Your task to perform on an android device: Open Maps and search for coffee Image 0: 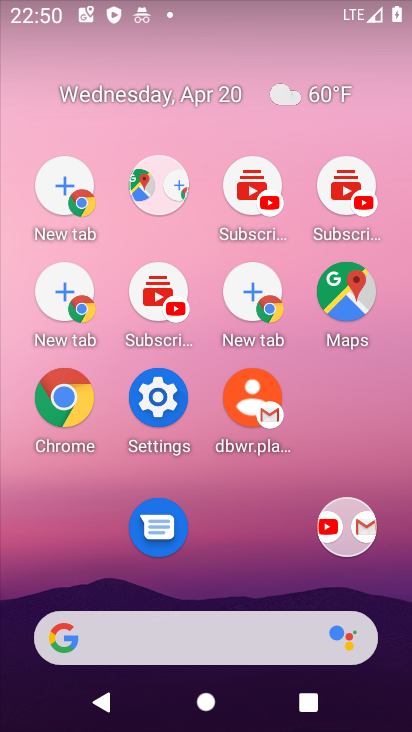
Step 0: drag from (251, 721) to (144, 27)
Your task to perform on an android device: Open Maps and search for coffee Image 1: 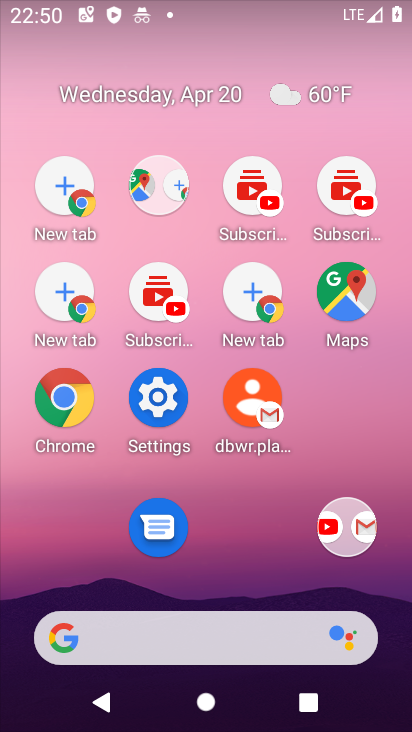
Step 1: drag from (303, 730) to (221, 10)
Your task to perform on an android device: Open Maps and search for coffee Image 2: 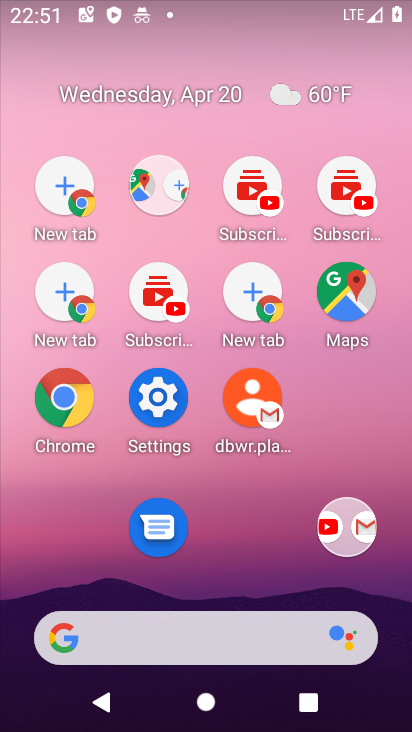
Step 2: drag from (392, 697) to (219, 112)
Your task to perform on an android device: Open Maps and search for coffee Image 3: 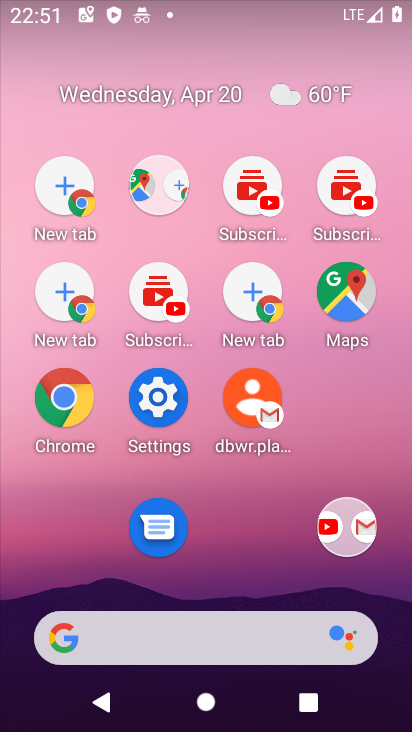
Step 3: drag from (384, 626) to (182, 150)
Your task to perform on an android device: Open Maps and search for coffee Image 4: 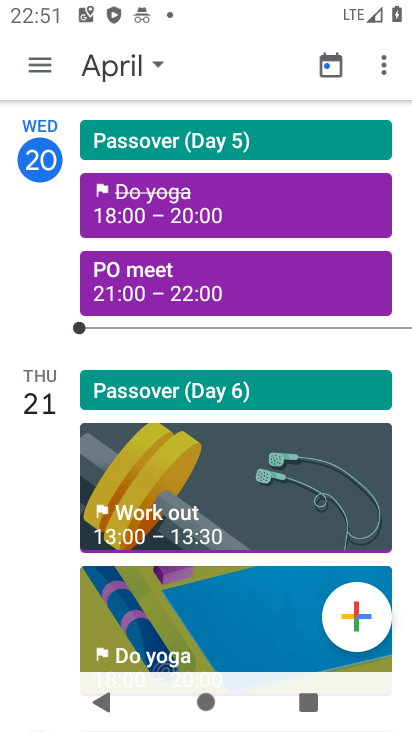
Step 4: drag from (287, 523) to (231, 204)
Your task to perform on an android device: Open Maps and search for coffee Image 5: 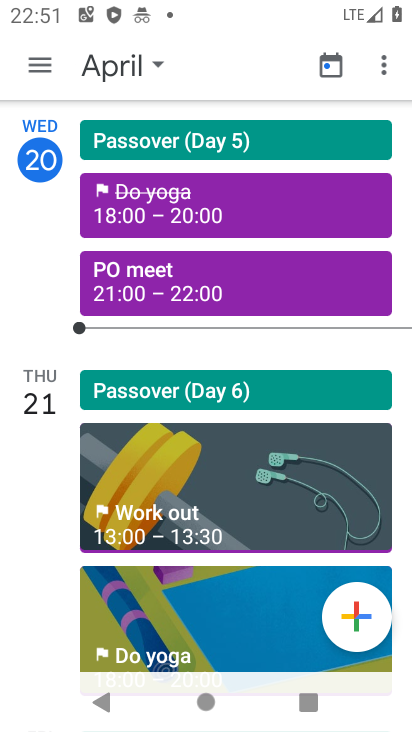
Step 5: press home button
Your task to perform on an android device: Open Maps and search for coffee Image 6: 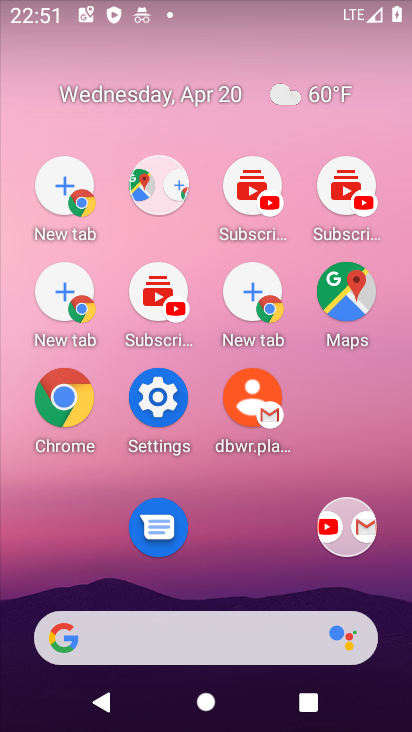
Step 6: drag from (340, 304) to (388, 444)
Your task to perform on an android device: Open Maps and search for coffee Image 7: 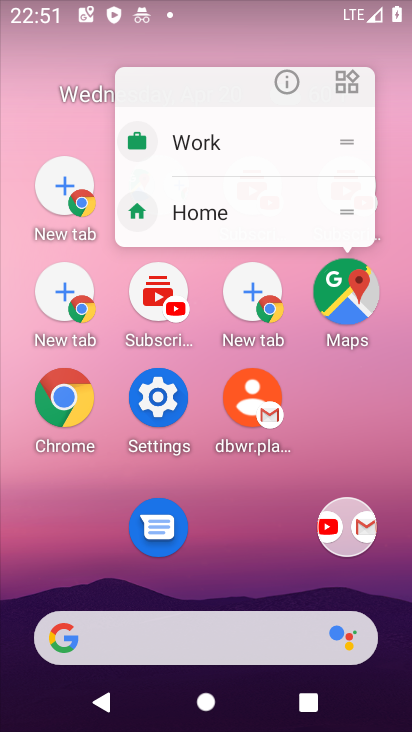
Step 7: drag from (323, 570) to (247, 134)
Your task to perform on an android device: Open Maps and search for coffee Image 8: 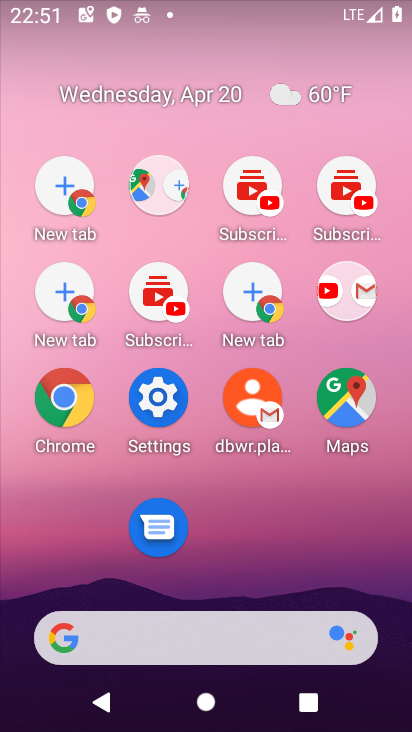
Step 8: click (348, 387)
Your task to perform on an android device: Open Maps and search for coffee Image 9: 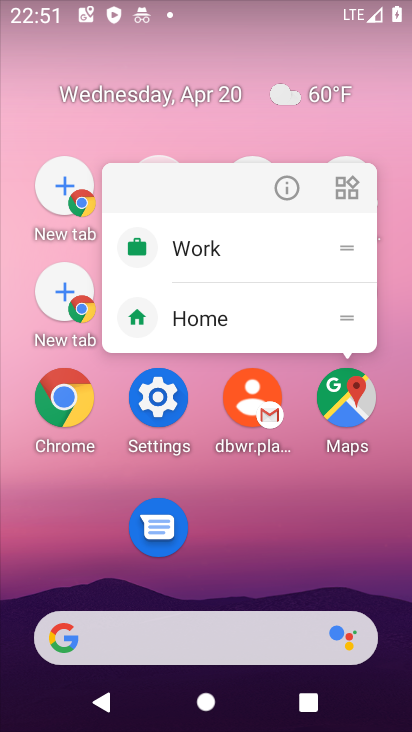
Step 9: click (367, 416)
Your task to perform on an android device: Open Maps and search for coffee Image 10: 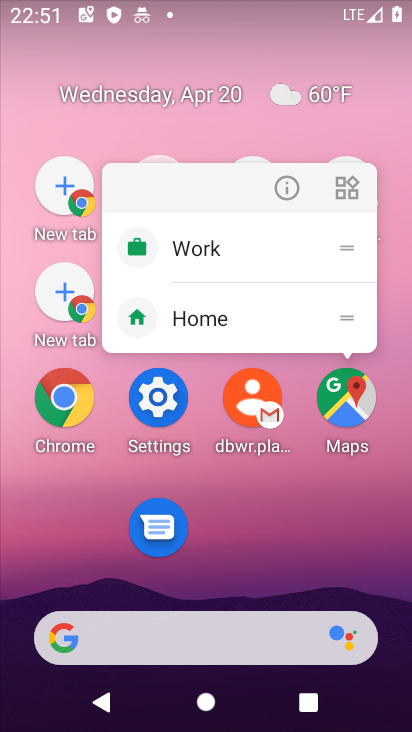
Step 10: click (356, 391)
Your task to perform on an android device: Open Maps and search for coffee Image 11: 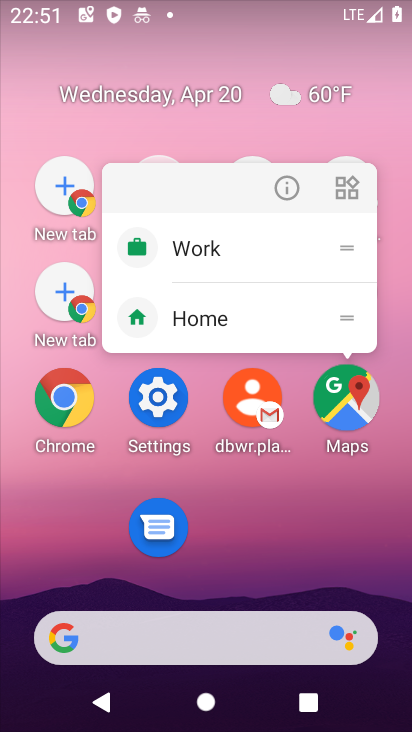
Step 11: click (358, 391)
Your task to perform on an android device: Open Maps and search for coffee Image 12: 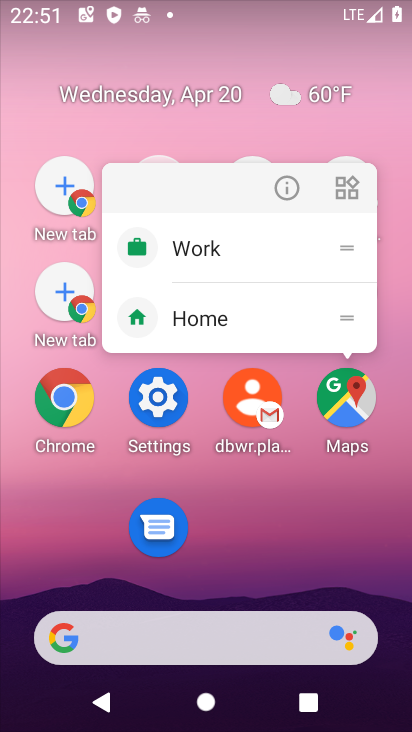
Step 12: click (359, 391)
Your task to perform on an android device: Open Maps and search for coffee Image 13: 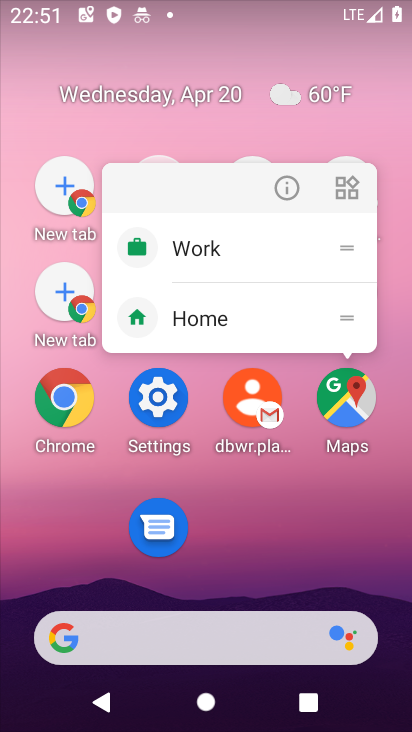
Step 13: click (339, 396)
Your task to perform on an android device: Open Maps and search for coffee Image 14: 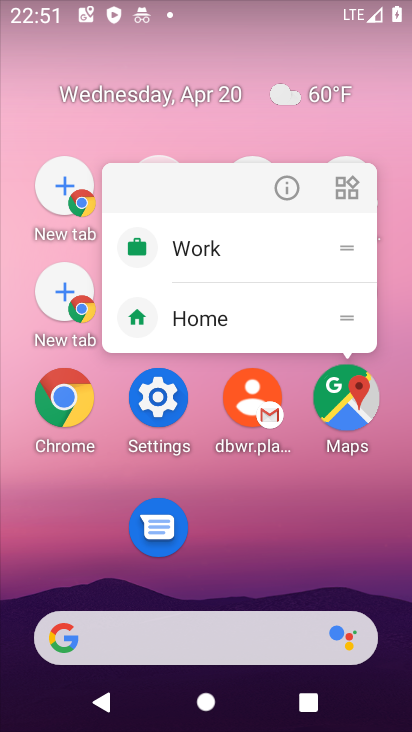
Step 14: click (339, 396)
Your task to perform on an android device: Open Maps and search for coffee Image 15: 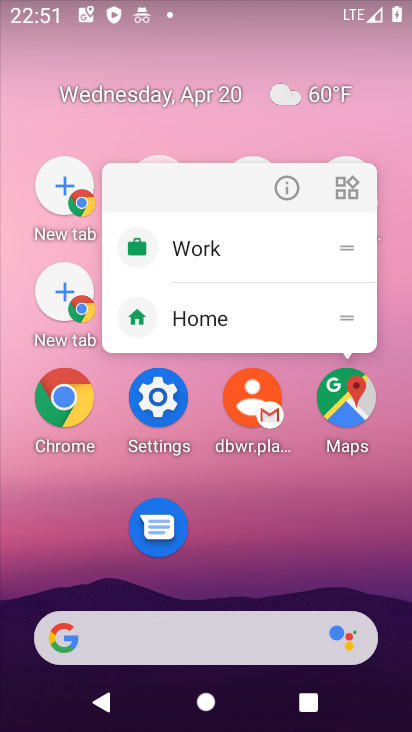
Step 15: click (340, 396)
Your task to perform on an android device: Open Maps and search for coffee Image 16: 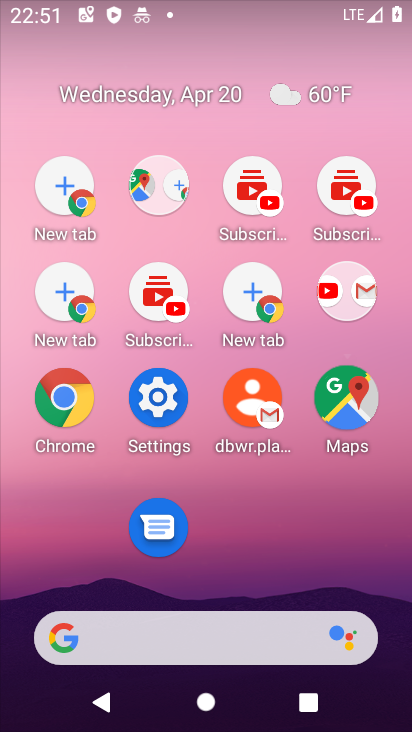
Step 16: click (340, 396)
Your task to perform on an android device: Open Maps and search for coffee Image 17: 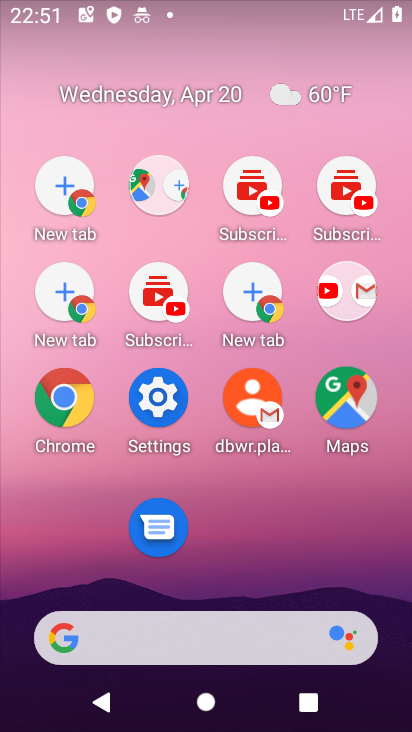
Step 17: click (343, 396)
Your task to perform on an android device: Open Maps and search for coffee Image 18: 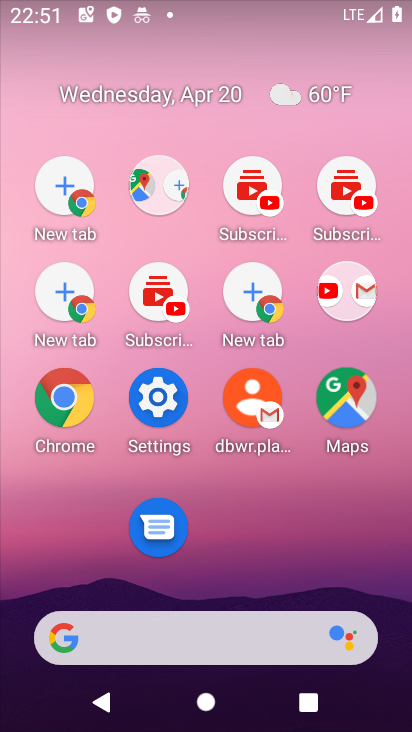
Step 18: click (348, 396)
Your task to perform on an android device: Open Maps and search for coffee Image 19: 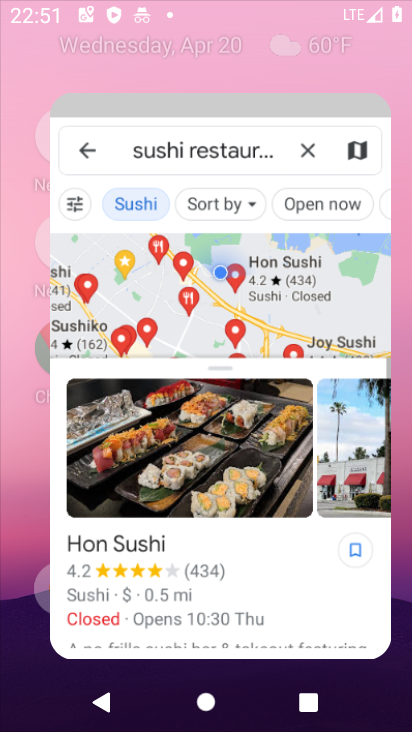
Step 19: click (352, 398)
Your task to perform on an android device: Open Maps and search for coffee Image 20: 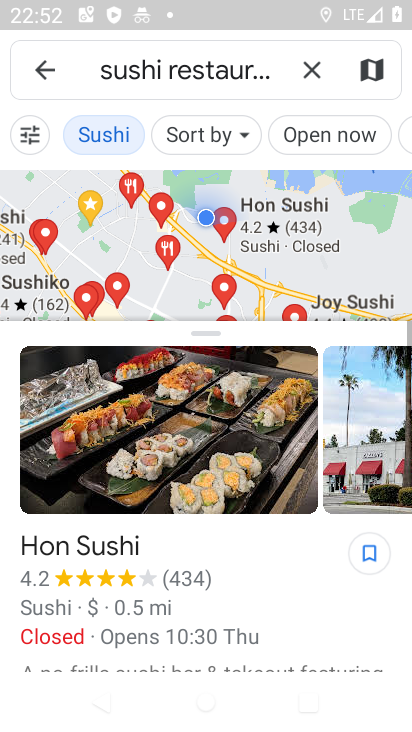
Step 20: click (303, 62)
Your task to perform on an android device: Open Maps and search for coffee Image 21: 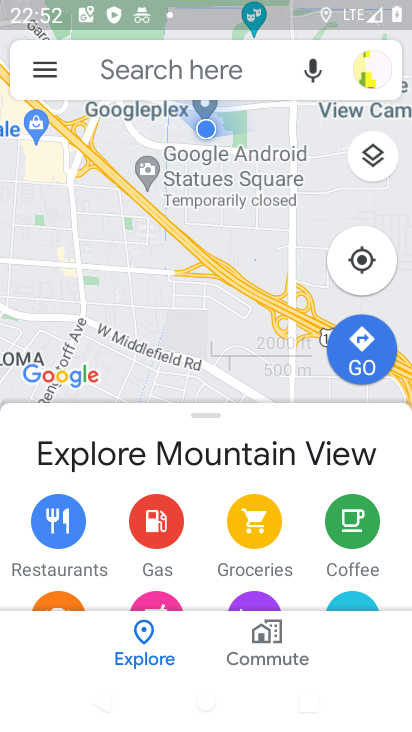
Step 21: click (107, 59)
Your task to perform on an android device: Open Maps and search for coffee Image 22: 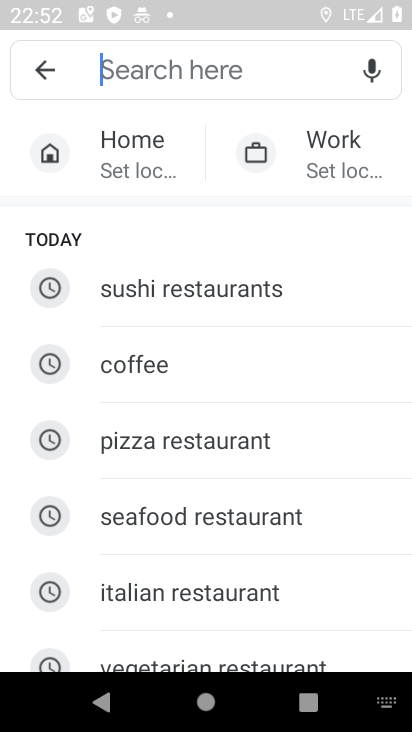
Step 22: click (146, 370)
Your task to perform on an android device: Open Maps and search for coffee Image 23: 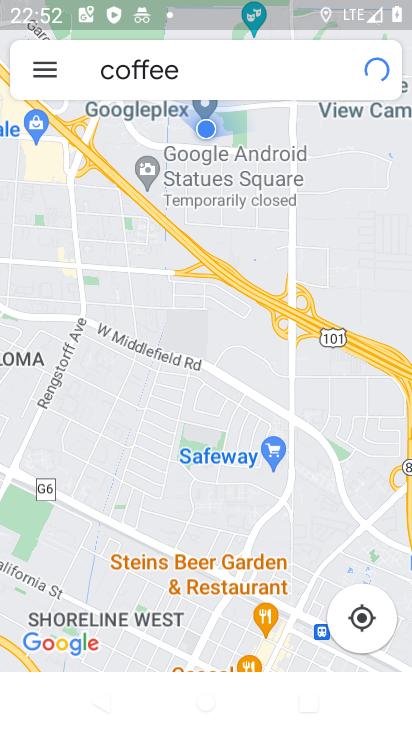
Step 23: task complete